Your task to perform on an android device: Open network settings Image 0: 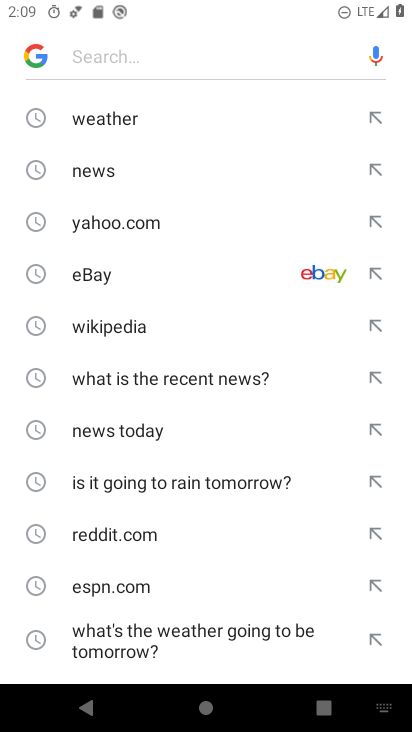
Step 0: press home button
Your task to perform on an android device: Open network settings Image 1: 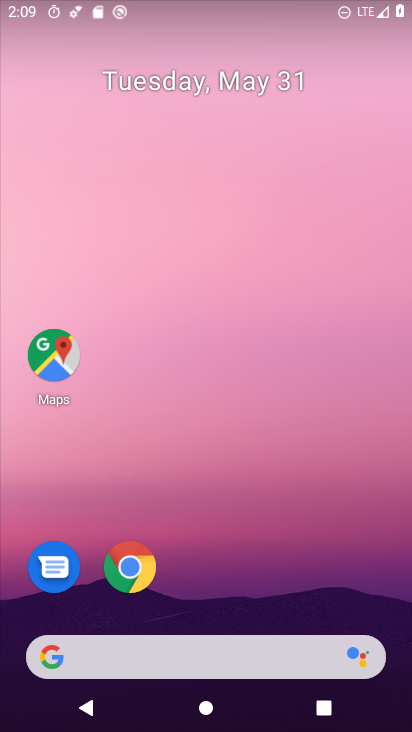
Step 1: drag from (211, 492) to (193, 131)
Your task to perform on an android device: Open network settings Image 2: 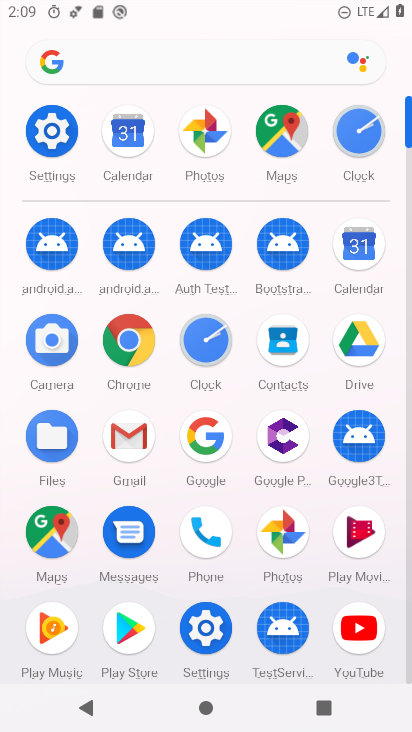
Step 2: click (42, 141)
Your task to perform on an android device: Open network settings Image 3: 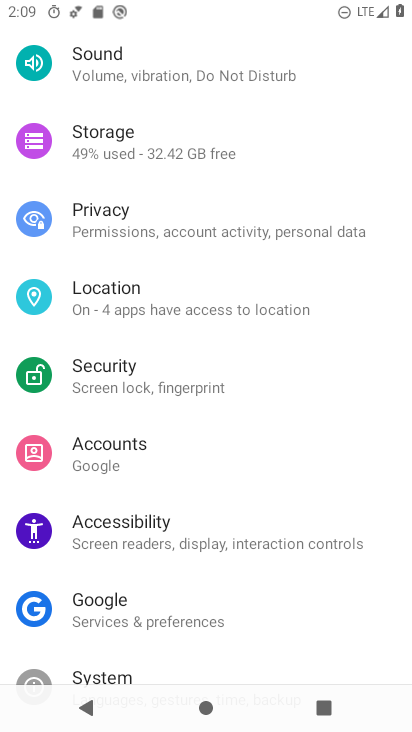
Step 3: drag from (143, 126) to (202, 581)
Your task to perform on an android device: Open network settings Image 4: 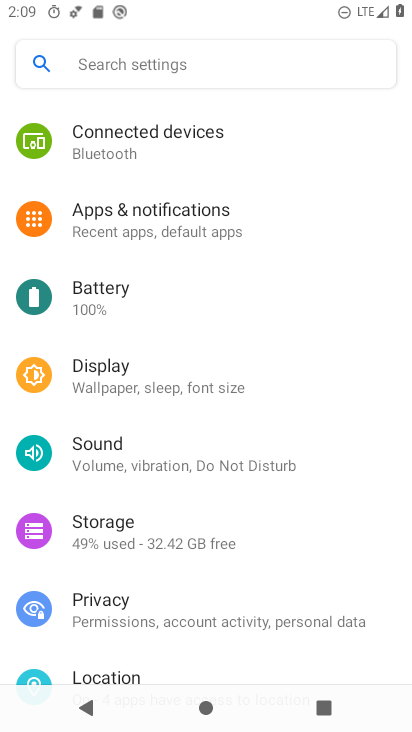
Step 4: drag from (142, 190) to (203, 535)
Your task to perform on an android device: Open network settings Image 5: 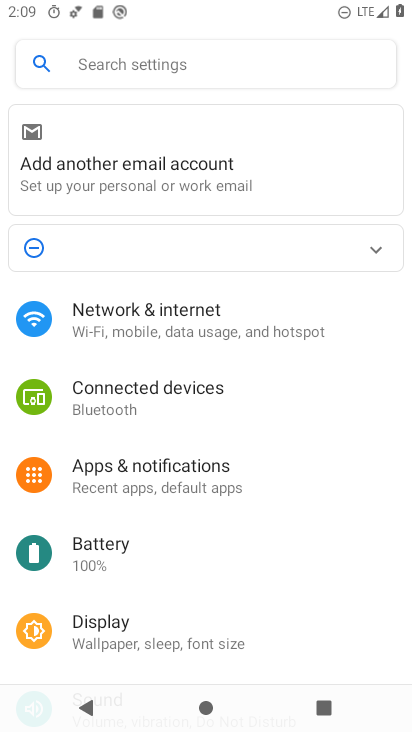
Step 5: click (209, 305)
Your task to perform on an android device: Open network settings Image 6: 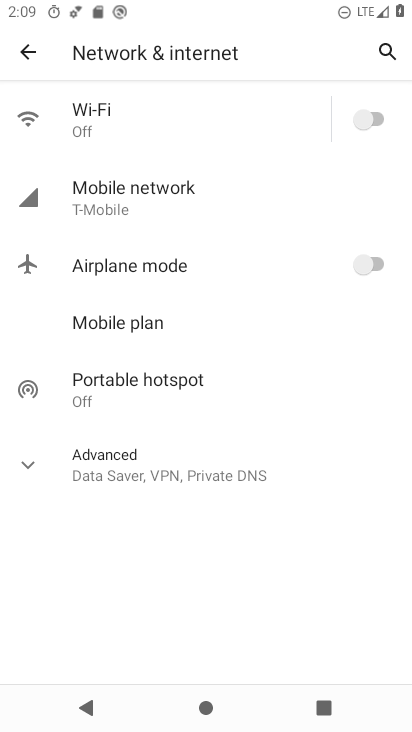
Step 6: click (144, 206)
Your task to perform on an android device: Open network settings Image 7: 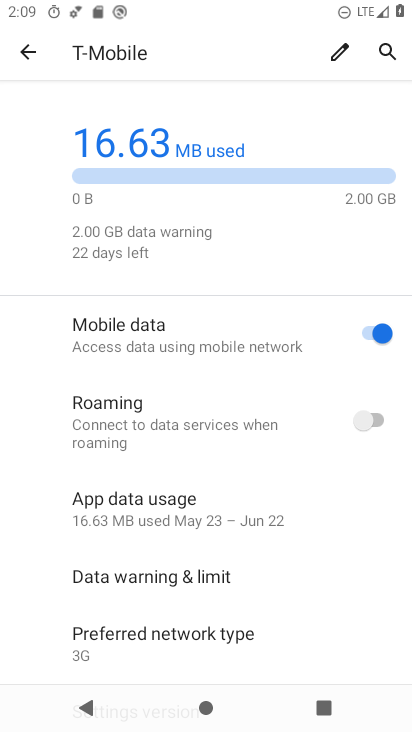
Step 7: task complete